Your task to perform on an android device: add a contact in the contacts app Image 0: 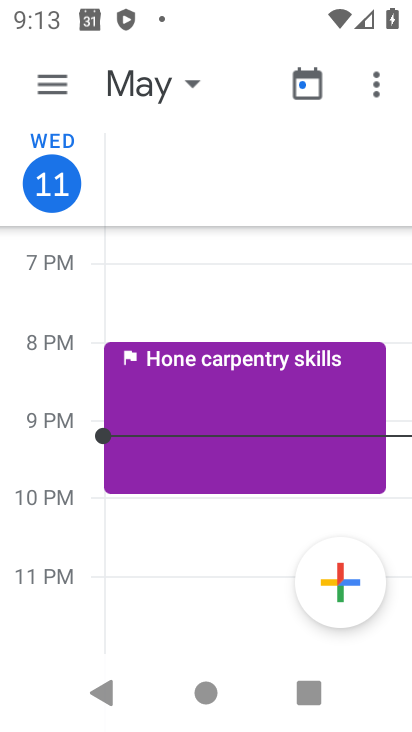
Step 0: press home button
Your task to perform on an android device: add a contact in the contacts app Image 1: 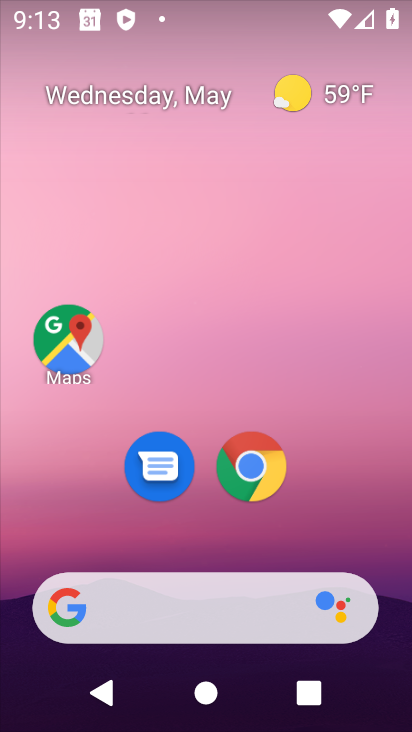
Step 1: drag from (371, 561) to (348, 201)
Your task to perform on an android device: add a contact in the contacts app Image 2: 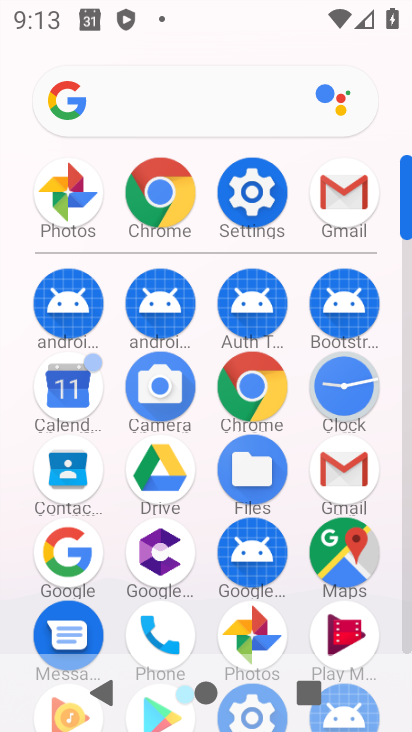
Step 2: click (174, 621)
Your task to perform on an android device: add a contact in the contacts app Image 3: 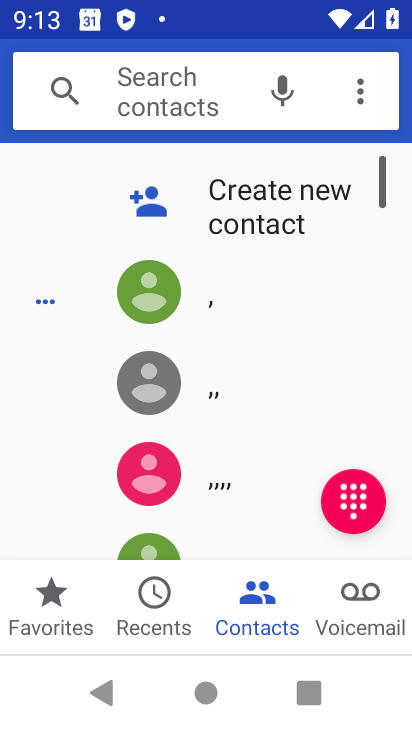
Step 3: click (163, 593)
Your task to perform on an android device: add a contact in the contacts app Image 4: 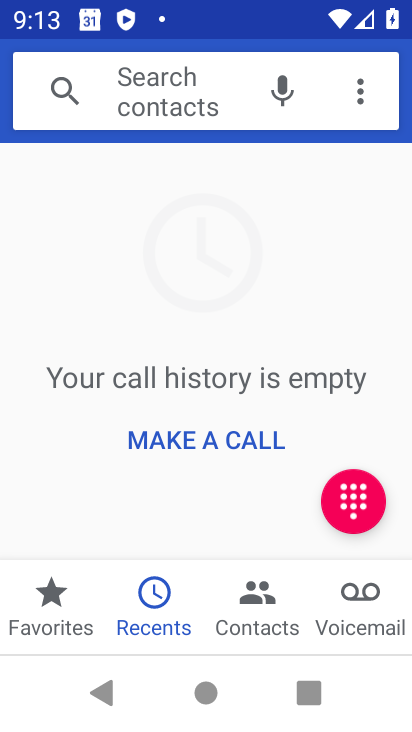
Step 4: click (24, 598)
Your task to perform on an android device: add a contact in the contacts app Image 5: 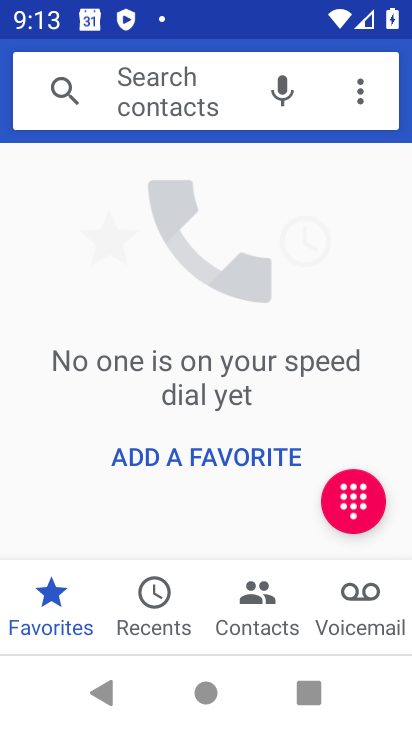
Step 5: click (175, 464)
Your task to perform on an android device: add a contact in the contacts app Image 6: 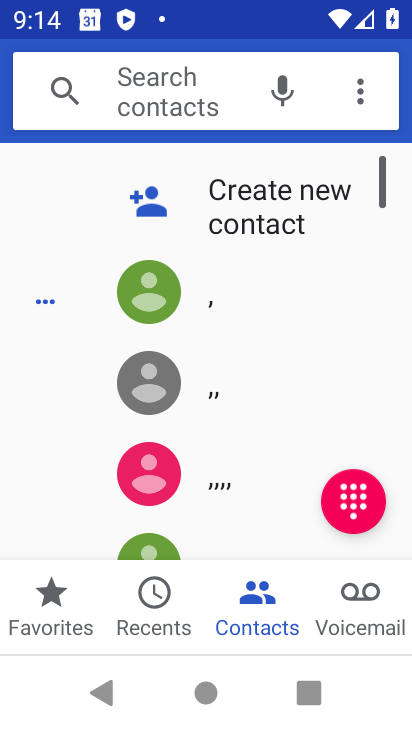
Step 6: click (202, 189)
Your task to perform on an android device: add a contact in the contacts app Image 7: 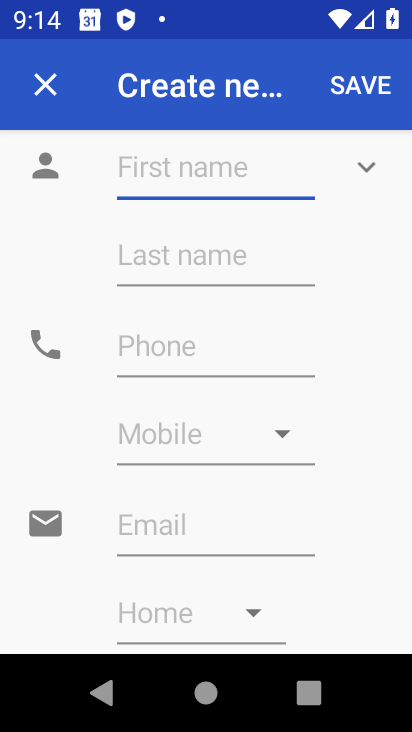
Step 7: click (215, 179)
Your task to perform on an android device: add a contact in the contacts app Image 8: 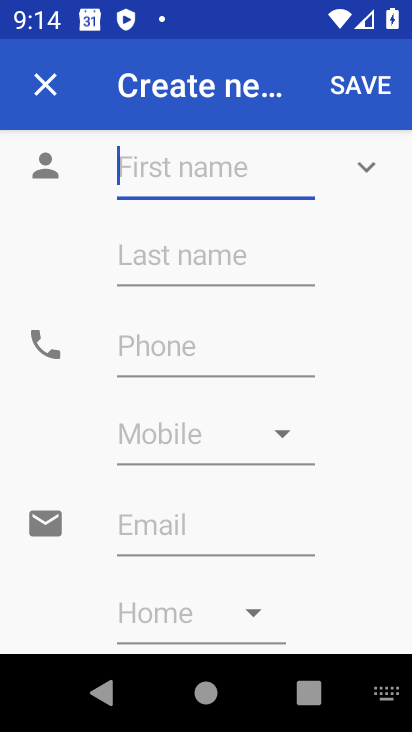
Step 8: type "plppllplp"
Your task to perform on an android device: add a contact in the contacts app Image 9: 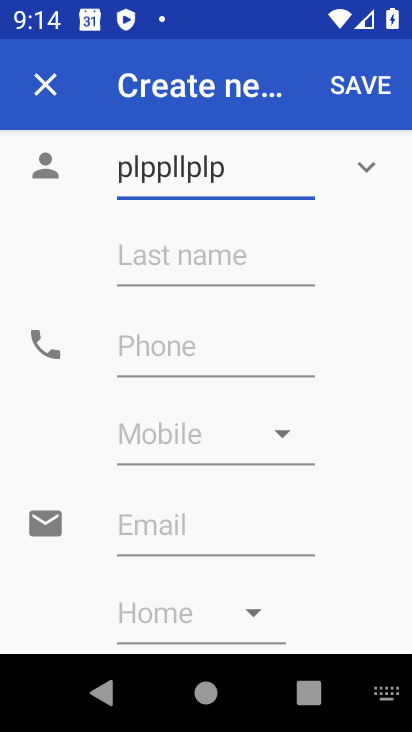
Step 9: click (156, 348)
Your task to perform on an android device: add a contact in the contacts app Image 10: 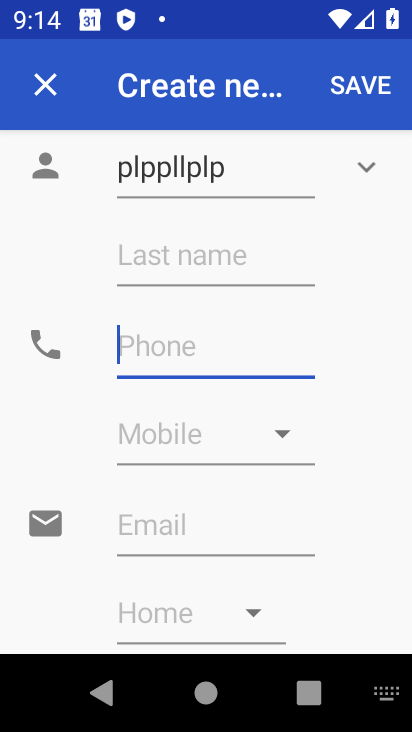
Step 10: type "909009090909"
Your task to perform on an android device: add a contact in the contacts app Image 11: 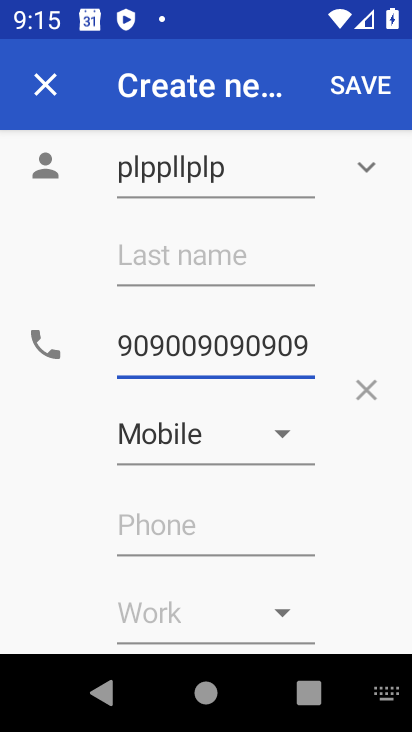
Step 11: click (346, 81)
Your task to perform on an android device: add a contact in the contacts app Image 12: 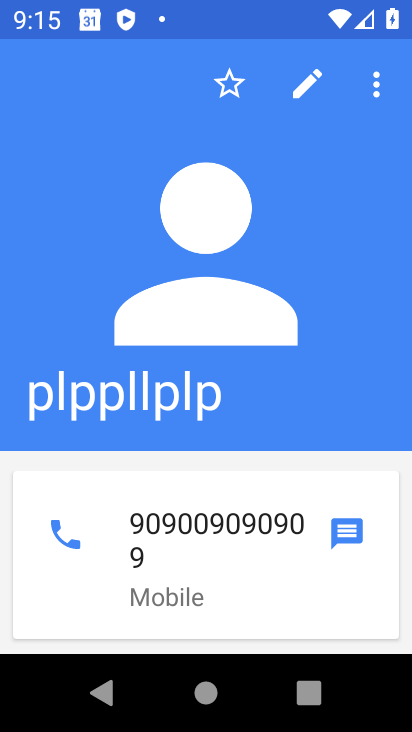
Step 12: task complete